Your task to perform on an android device: What's the weather going to be tomorrow? Image 0: 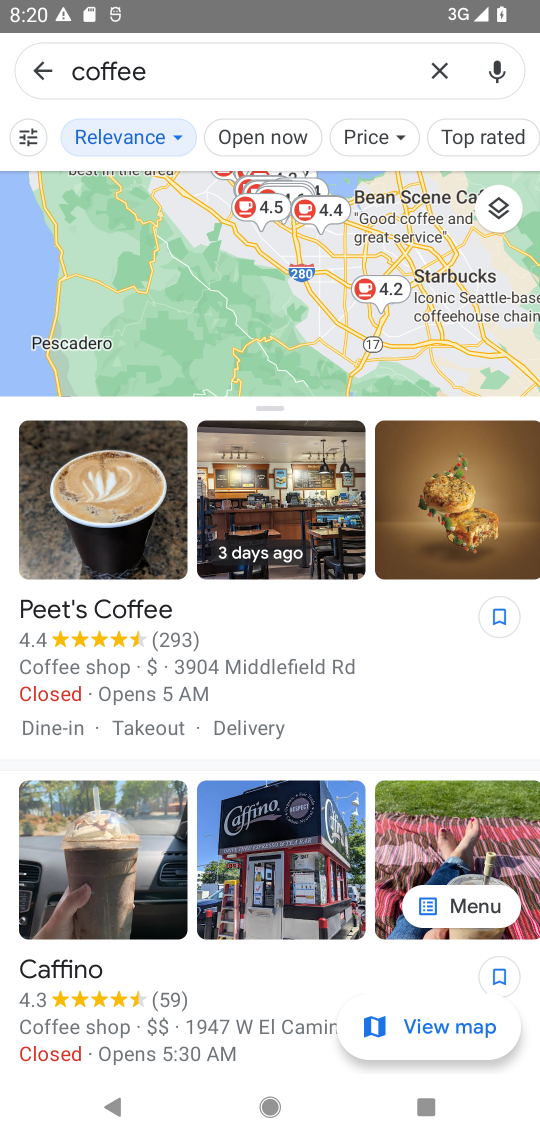
Step 0: press home button
Your task to perform on an android device: What's the weather going to be tomorrow? Image 1: 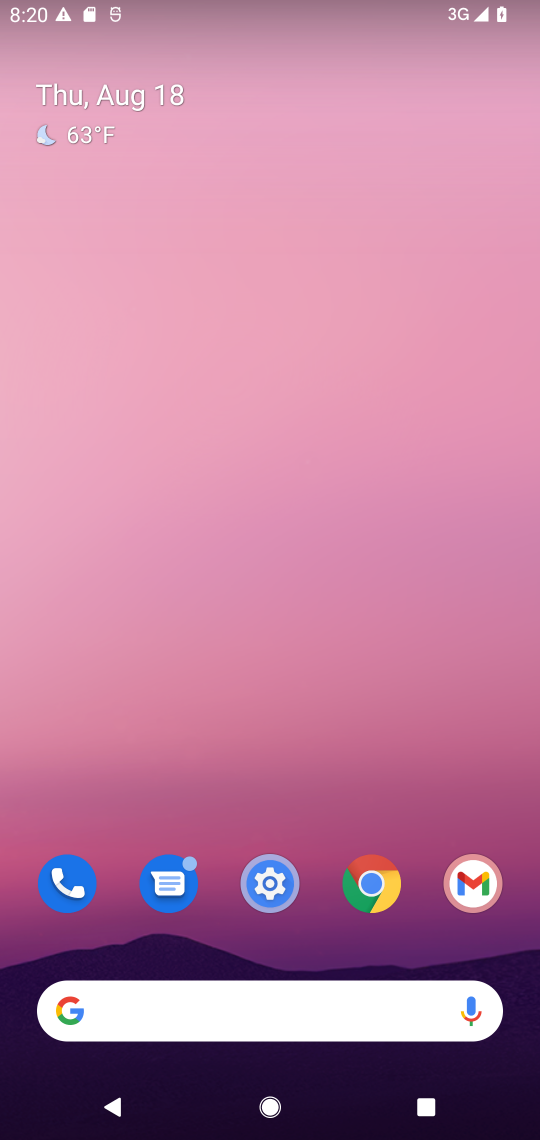
Step 1: click (122, 1019)
Your task to perform on an android device: What's the weather going to be tomorrow? Image 2: 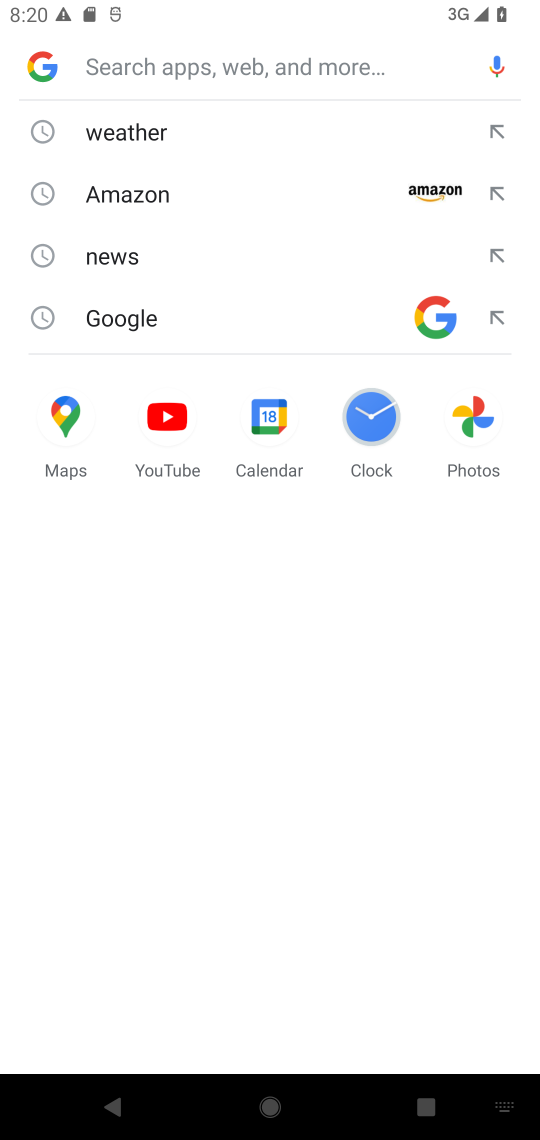
Step 2: type "What's the weather going to be tomorrow?"
Your task to perform on an android device: What's the weather going to be tomorrow? Image 3: 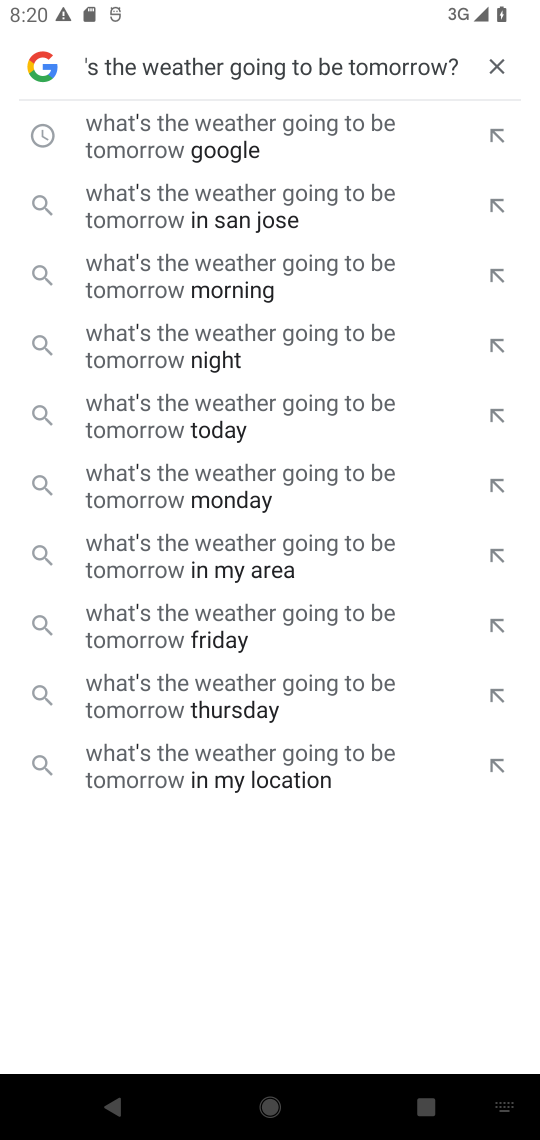
Step 3: type ""
Your task to perform on an android device: What's the weather going to be tomorrow? Image 4: 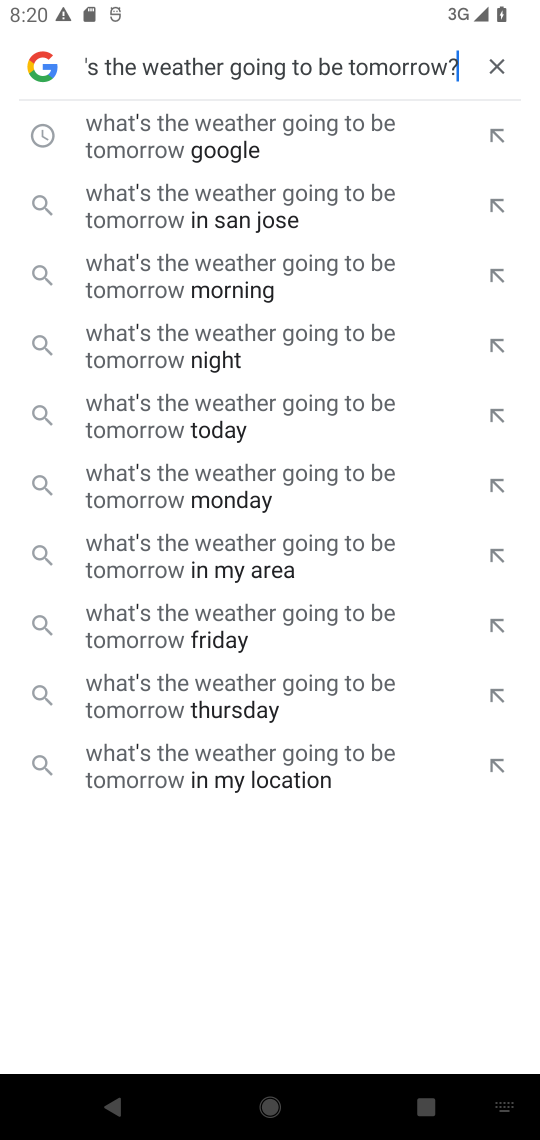
Step 4: type ""
Your task to perform on an android device: What's the weather going to be tomorrow? Image 5: 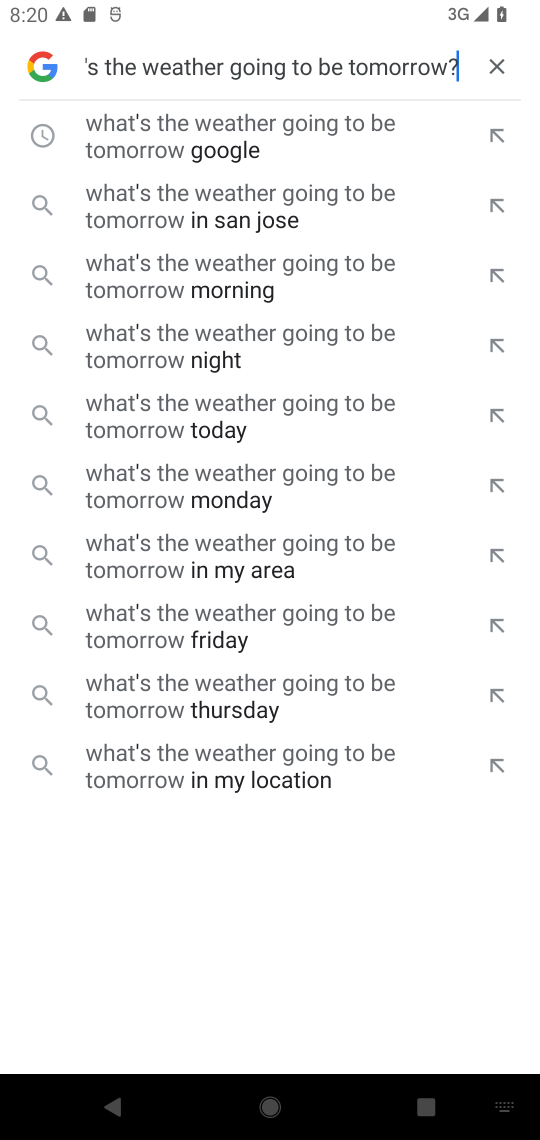
Step 5: type ""
Your task to perform on an android device: What's the weather going to be tomorrow? Image 6: 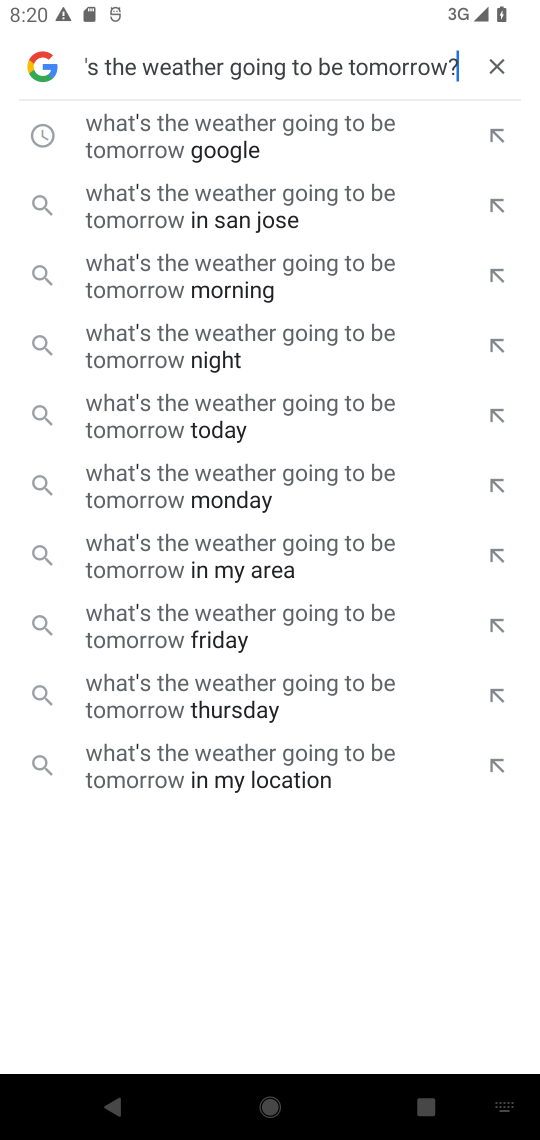
Step 6: task complete